Your task to perform on an android device: turn on sleep mode Image 0: 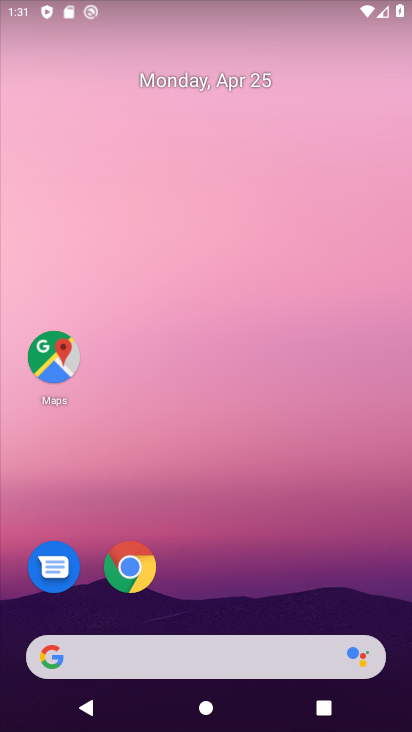
Step 0: drag from (338, 570) to (306, 117)
Your task to perform on an android device: turn on sleep mode Image 1: 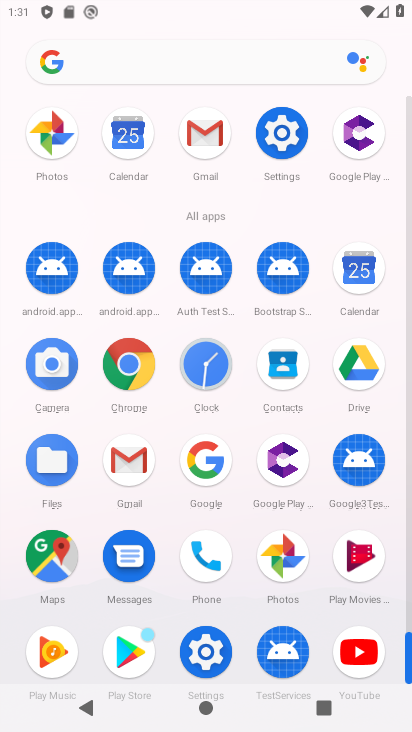
Step 1: click (203, 651)
Your task to perform on an android device: turn on sleep mode Image 2: 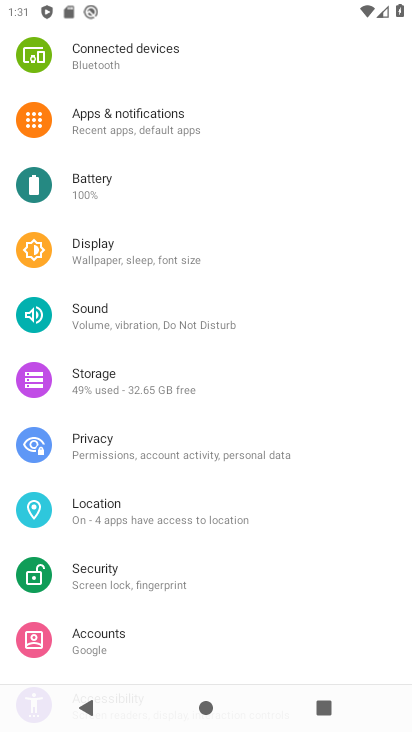
Step 2: click (204, 627)
Your task to perform on an android device: turn on sleep mode Image 3: 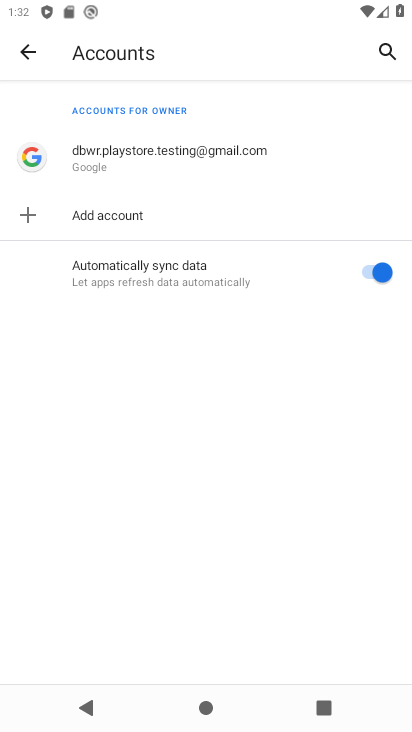
Step 3: press back button
Your task to perform on an android device: turn on sleep mode Image 4: 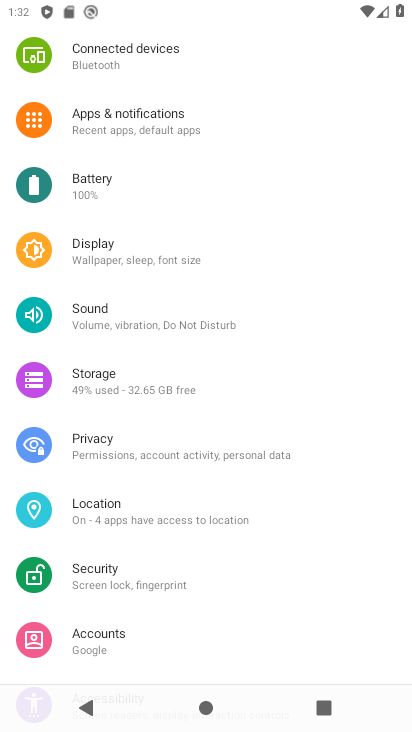
Step 4: click (126, 247)
Your task to perform on an android device: turn on sleep mode Image 5: 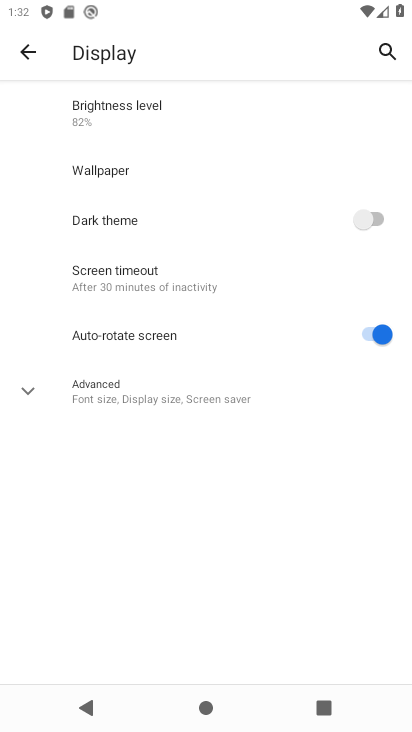
Step 5: click (20, 394)
Your task to perform on an android device: turn on sleep mode Image 6: 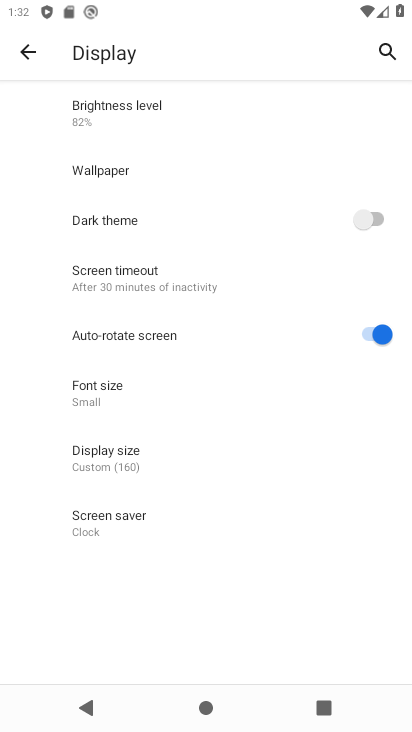
Step 6: task complete